Your task to perform on an android device: Go to eBay Image 0: 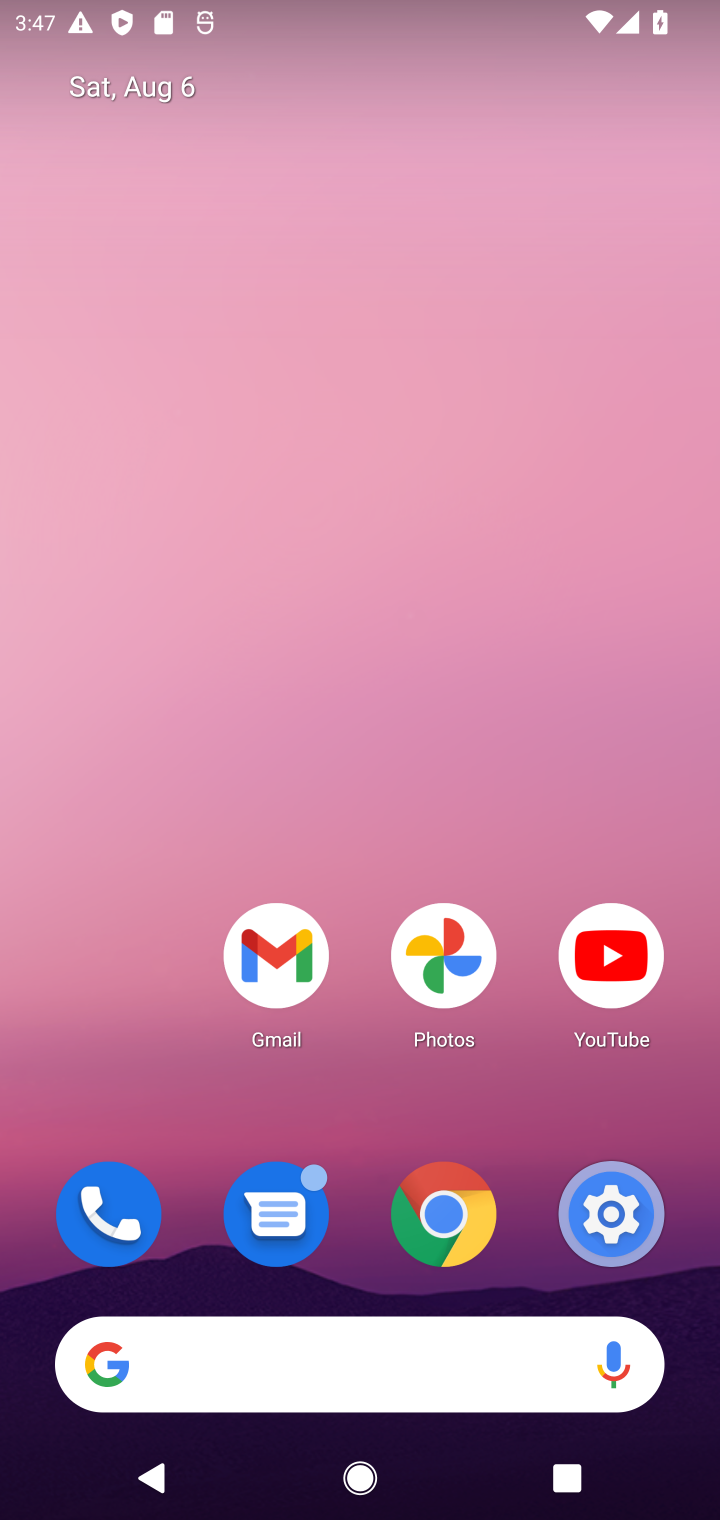
Step 0: drag from (368, 1202) to (370, 220)
Your task to perform on an android device: Go to eBay Image 1: 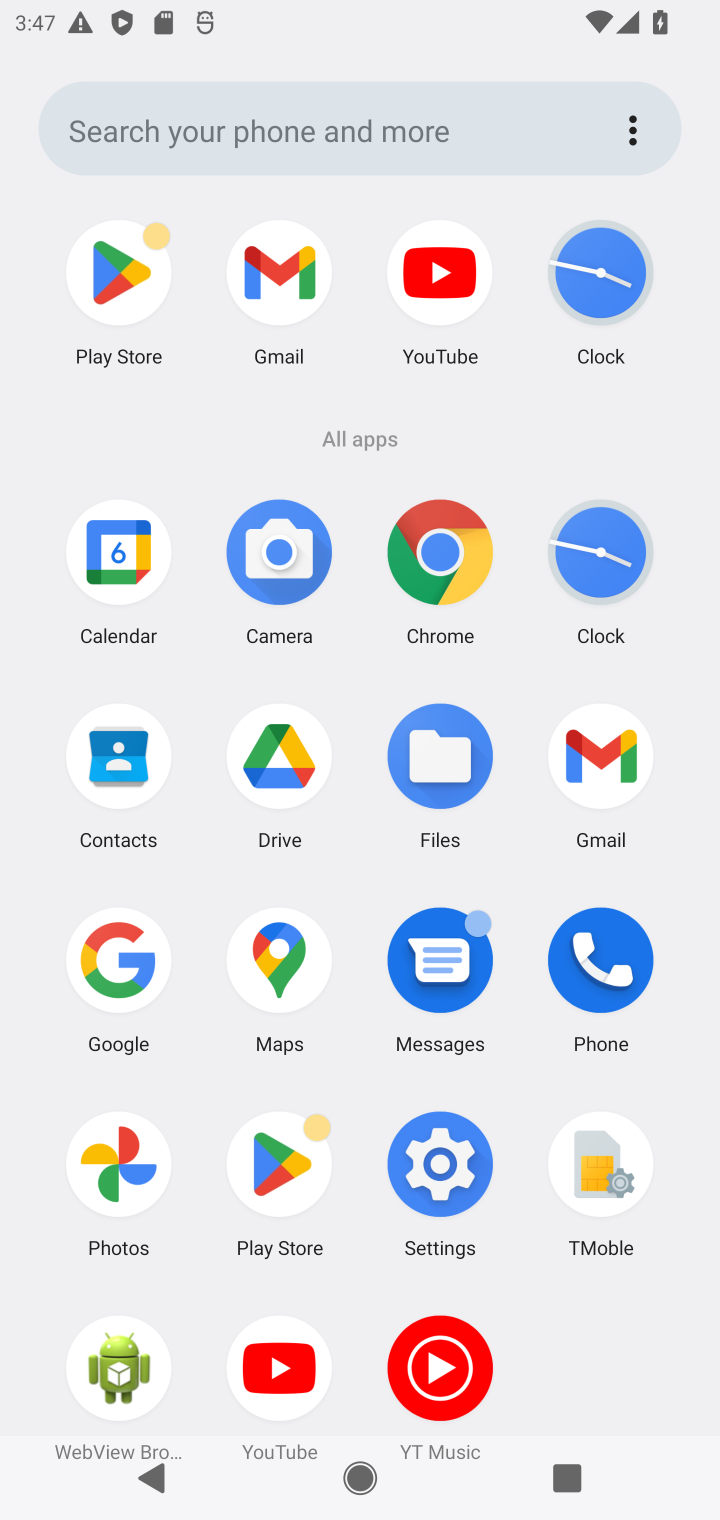
Step 1: click (443, 578)
Your task to perform on an android device: Go to eBay Image 2: 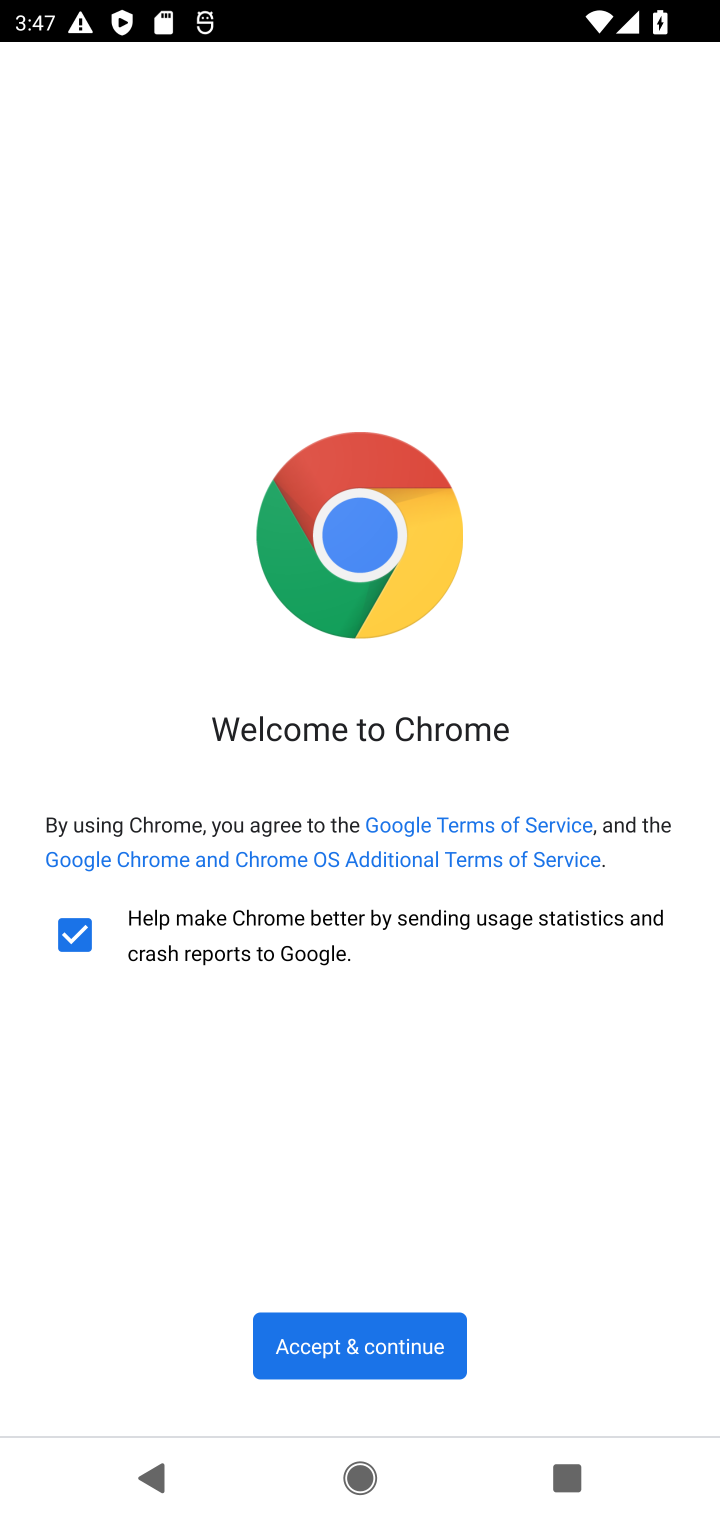
Step 2: click (314, 1334)
Your task to perform on an android device: Go to eBay Image 3: 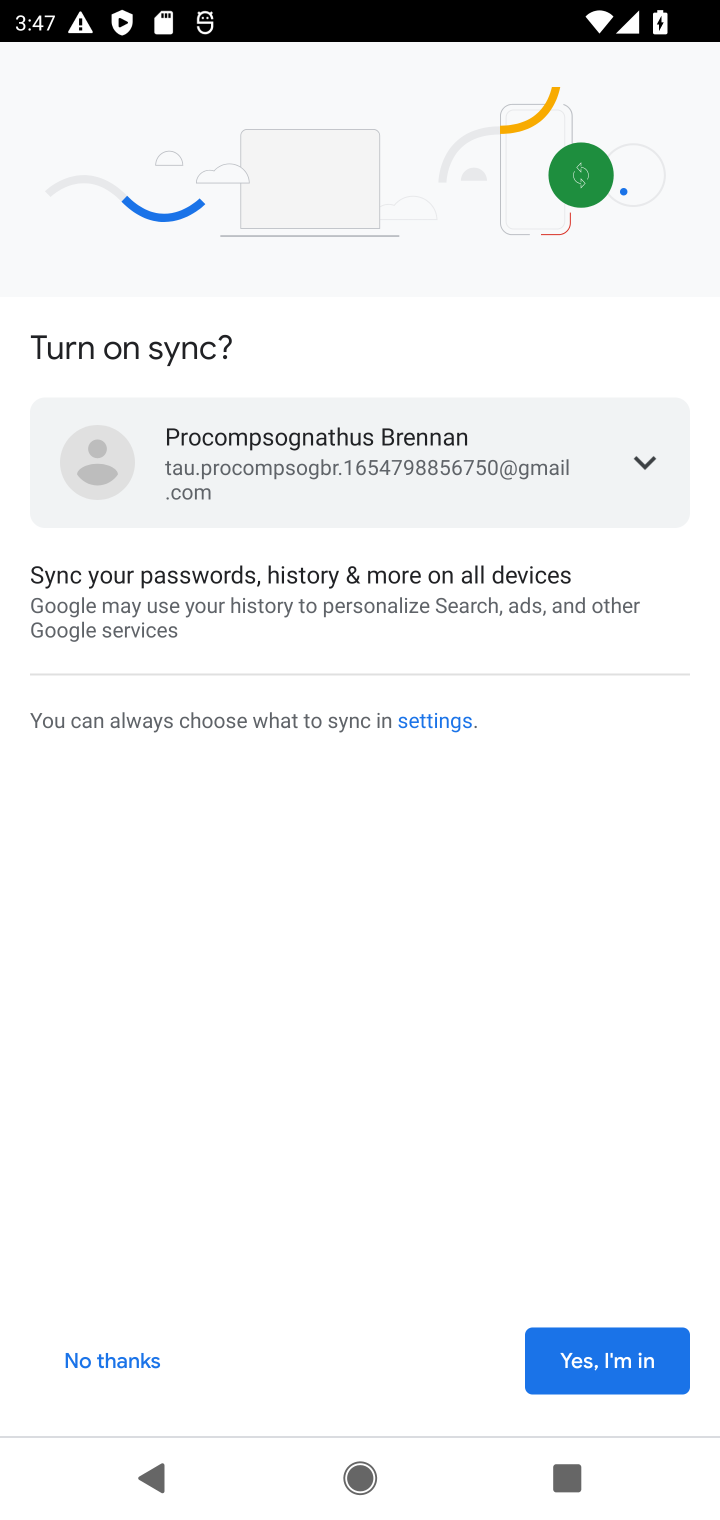
Step 3: click (587, 1338)
Your task to perform on an android device: Go to eBay Image 4: 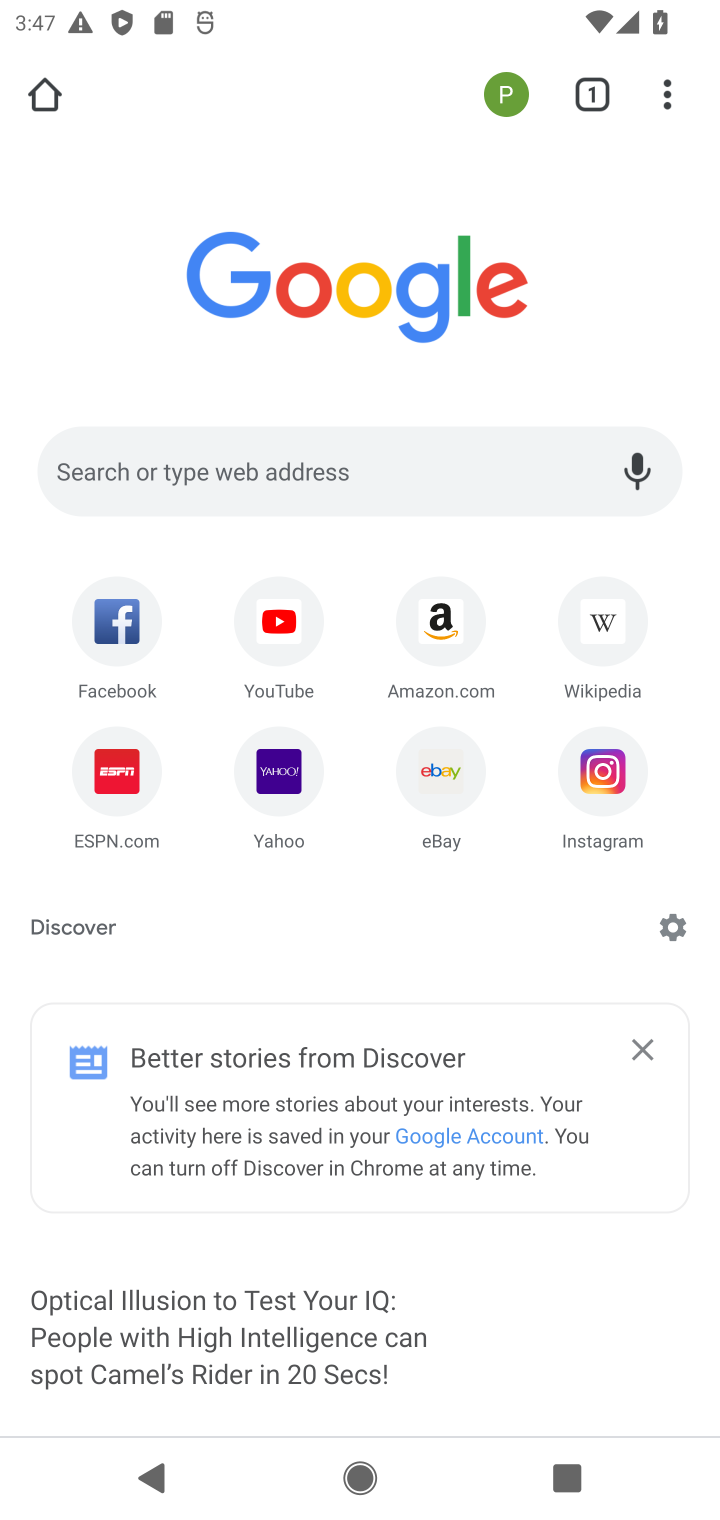
Step 4: click (440, 834)
Your task to perform on an android device: Go to eBay Image 5: 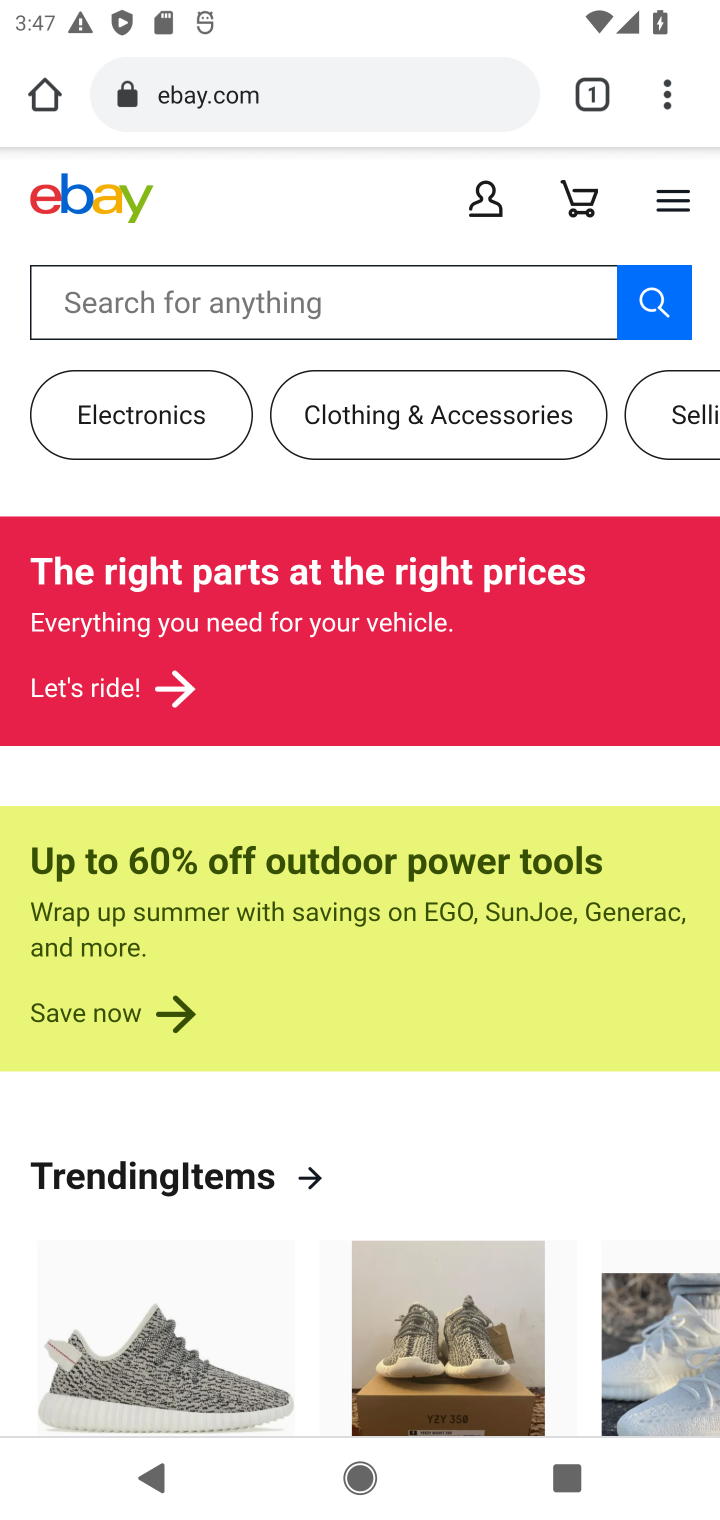
Step 5: task complete